Your task to perform on an android device: toggle translation in the chrome app Image 0: 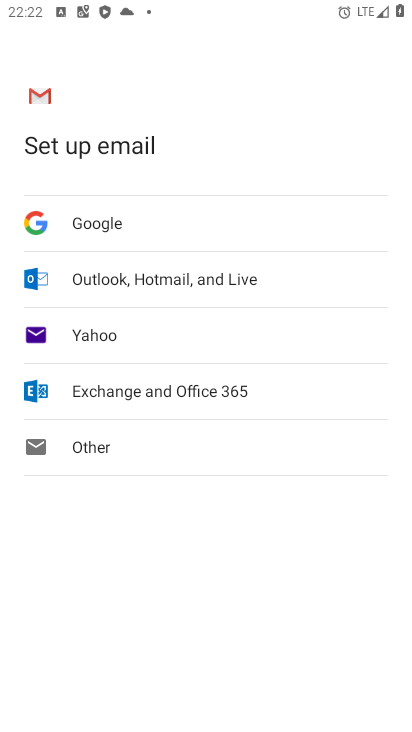
Step 0: press home button
Your task to perform on an android device: toggle translation in the chrome app Image 1: 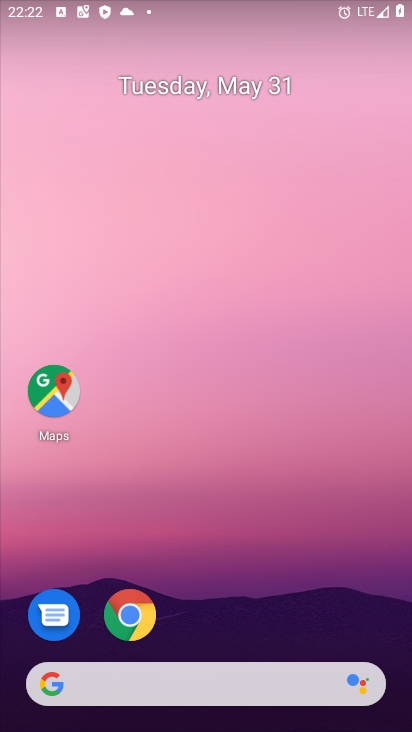
Step 1: click (127, 615)
Your task to perform on an android device: toggle translation in the chrome app Image 2: 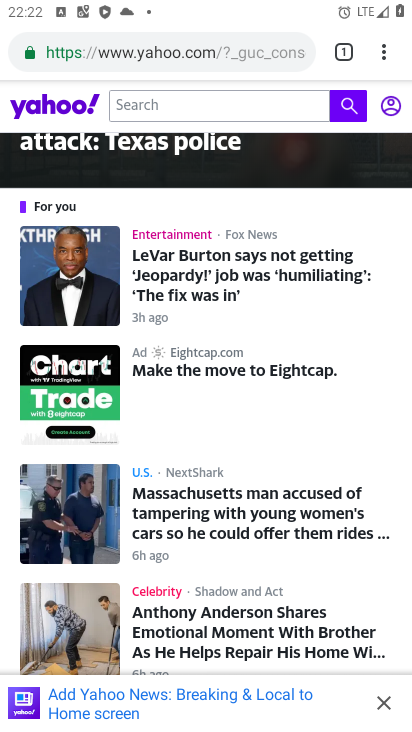
Step 2: click (385, 60)
Your task to perform on an android device: toggle translation in the chrome app Image 3: 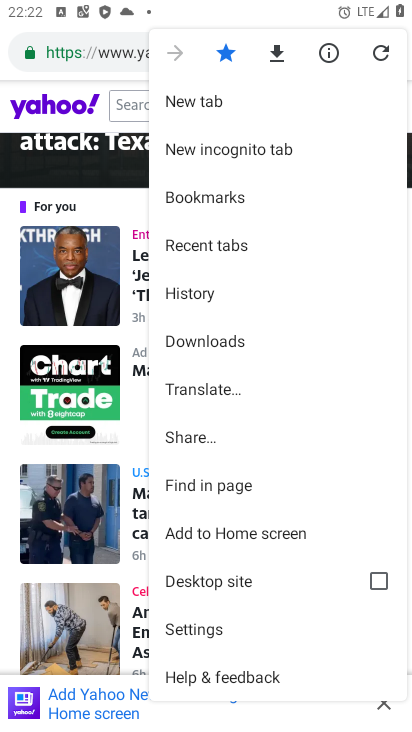
Step 3: click (199, 638)
Your task to perform on an android device: toggle translation in the chrome app Image 4: 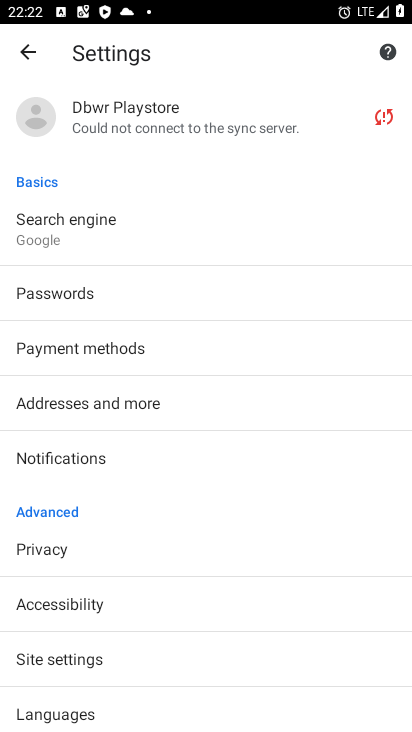
Step 4: drag from (176, 608) to (118, 255)
Your task to perform on an android device: toggle translation in the chrome app Image 5: 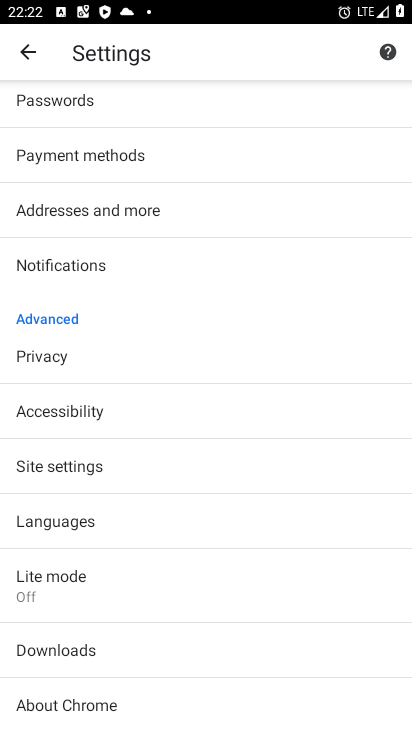
Step 5: click (61, 520)
Your task to perform on an android device: toggle translation in the chrome app Image 6: 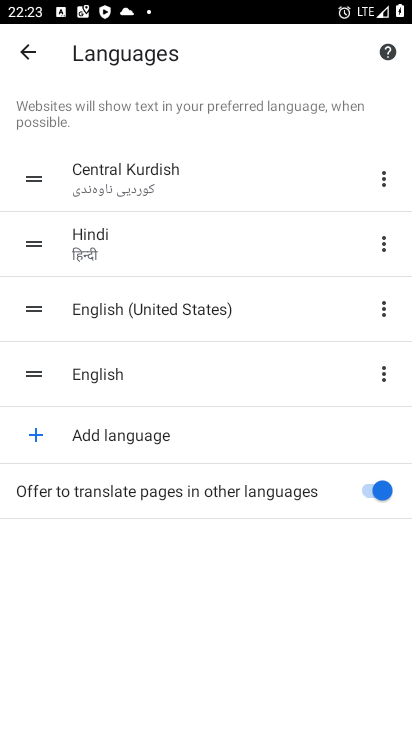
Step 6: click (361, 493)
Your task to perform on an android device: toggle translation in the chrome app Image 7: 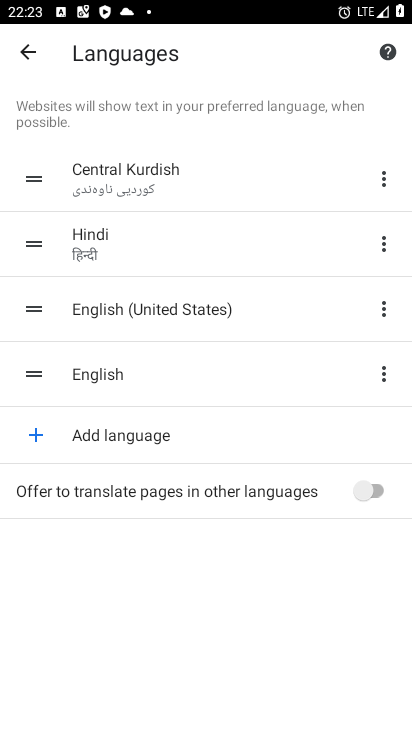
Step 7: task complete